Your task to perform on an android device: Open Reddit.com Image 0: 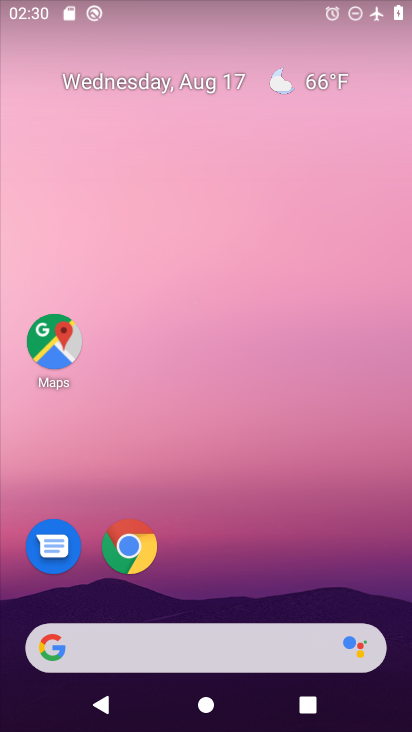
Step 0: click (128, 546)
Your task to perform on an android device: Open Reddit.com Image 1: 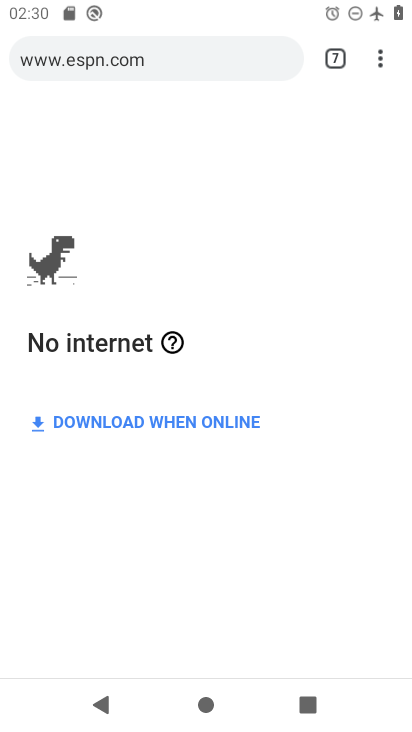
Step 1: click (376, 63)
Your task to perform on an android device: Open Reddit.com Image 2: 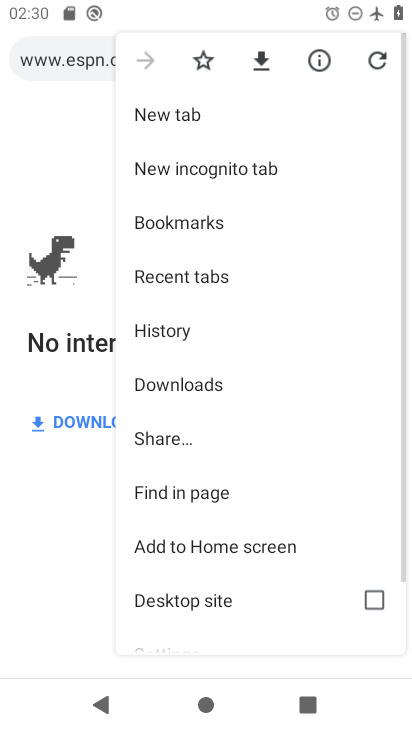
Step 2: click (164, 113)
Your task to perform on an android device: Open Reddit.com Image 3: 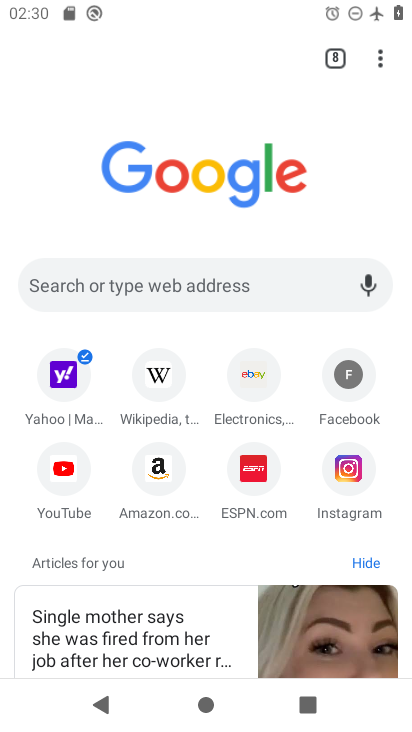
Step 3: click (144, 280)
Your task to perform on an android device: Open Reddit.com Image 4: 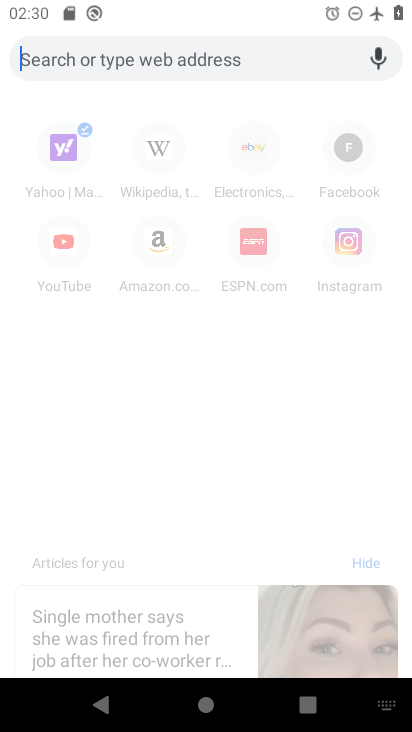
Step 4: type "reddit.com"
Your task to perform on an android device: Open Reddit.com Image 5: 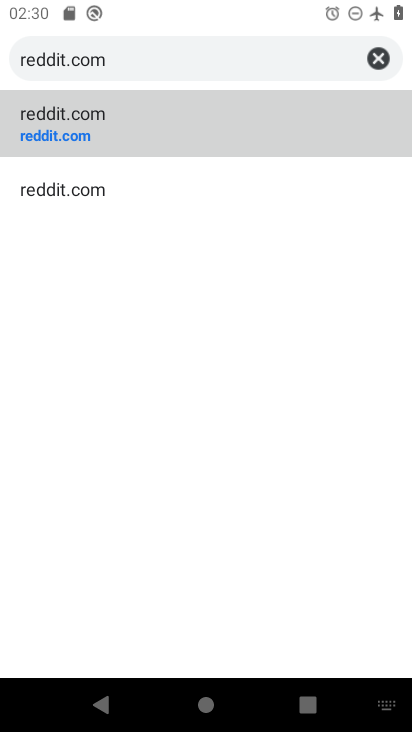
Step 5: click (50, 112)
Your task to perform on an android device: Open Reddit.com Image 6: 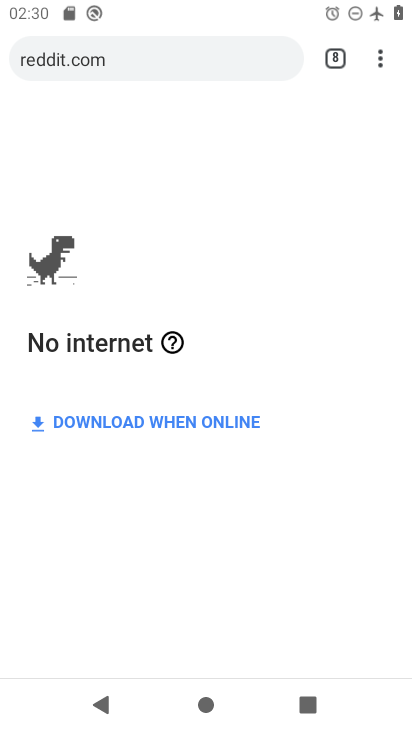
Step 6: task complete